Your task to perform on an android device: turn off data saver in the chrome app Image 0: 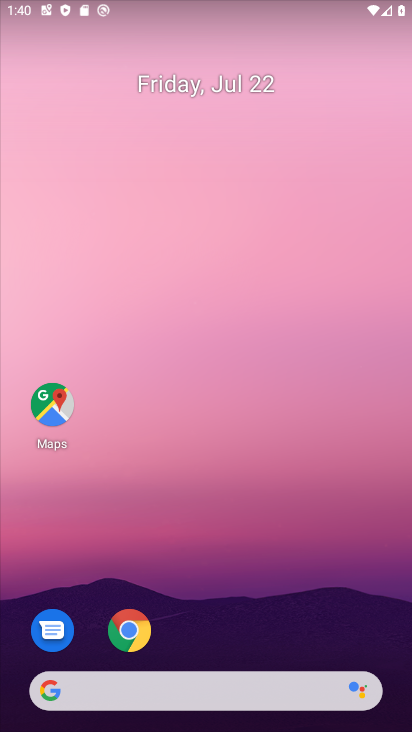
Step 0: click (130, 628)
Your task to perform on an android device: turn off data saver in the chrome app Image 1: 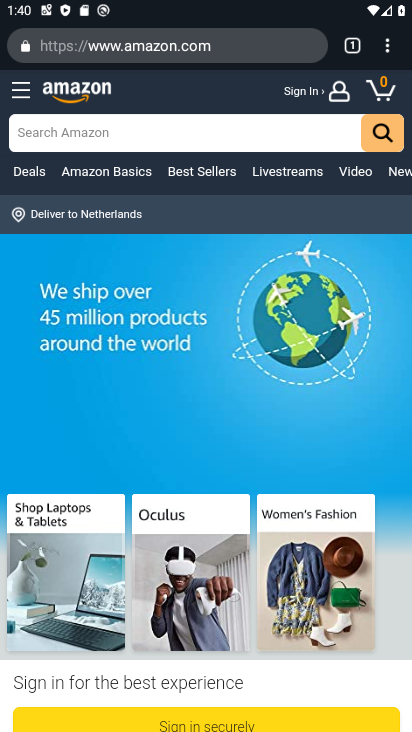
Step 1: click (390, 45)
Your task to perform on an android device: turn off data saver in the chrome app Image 2: 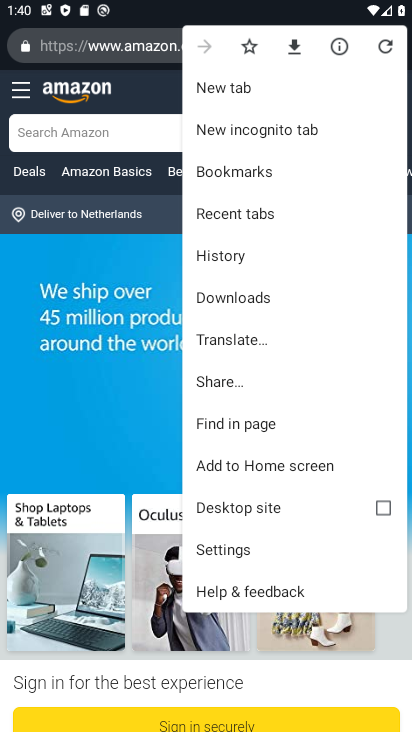
Step 2: click (217, 551)
Your task to perform on an android device: turn off data saver in the chrome app Image 3: 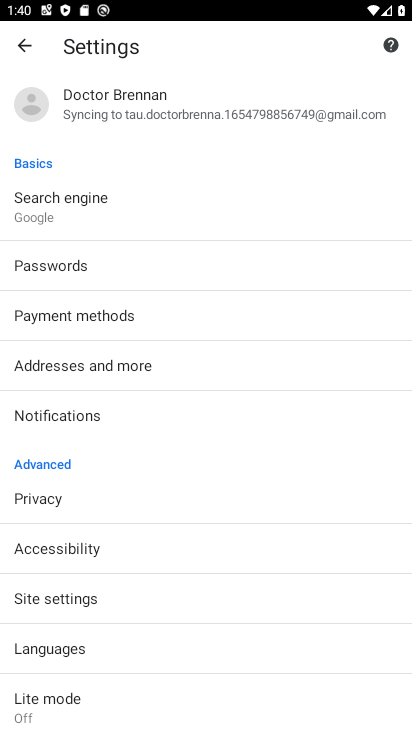
Step 3: click (36, 718)
Your task to perform on an android device: turn off data saver in the chrome app Image 4: 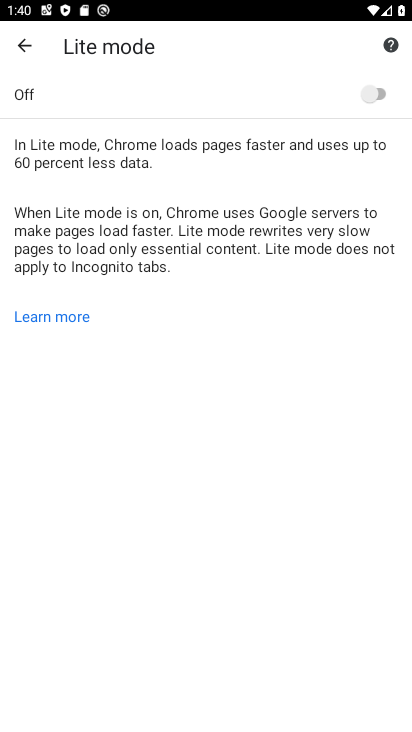
Step 4: task complete